Your task to perform on an android device: Open Youtube and go to the subscriptions tab Image 0: 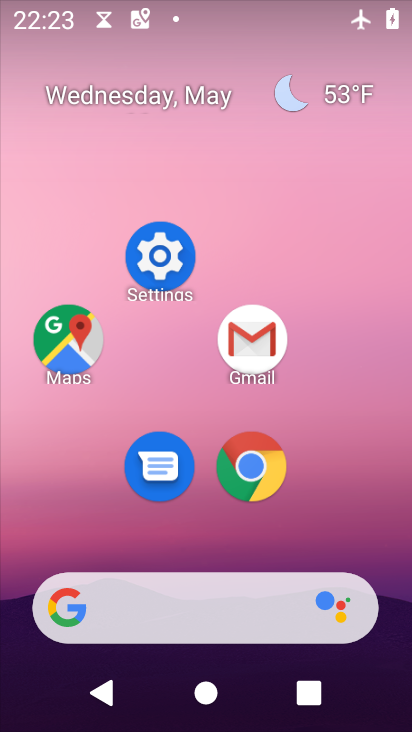
Step 0: drag from (196, 504) to (123, 182)
Your task to perform on an android device: Open Youtube and go to the subscriptions tab Image 1: 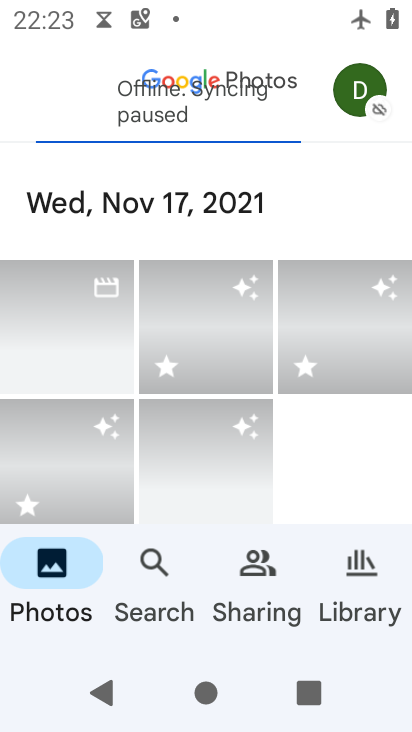
Step 1: press home button
Your task to perform on an android device: Open Youtube and go to the subscriptions tab Image 2: 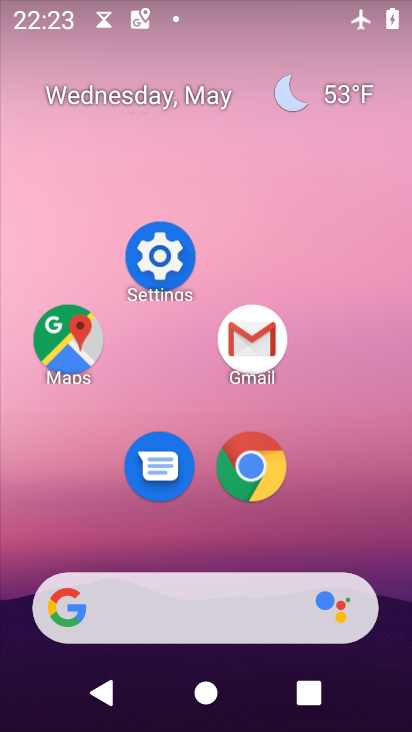
Step 2: drag from (219, 507) to (263, 32)
Your task to perform on an android device: Open Youtube and go to the subscriptions tab Image 3: 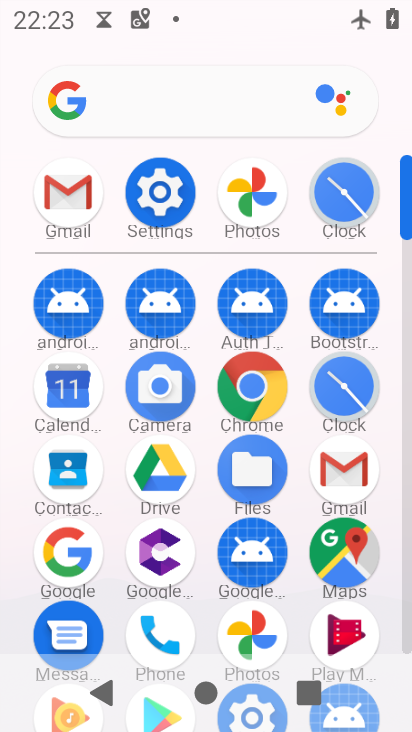
Step 3: drag from (205, 628) to (209, 372)
Your task to perform on an android device: Open Youtube and go to the subscriptions tab Image 4: 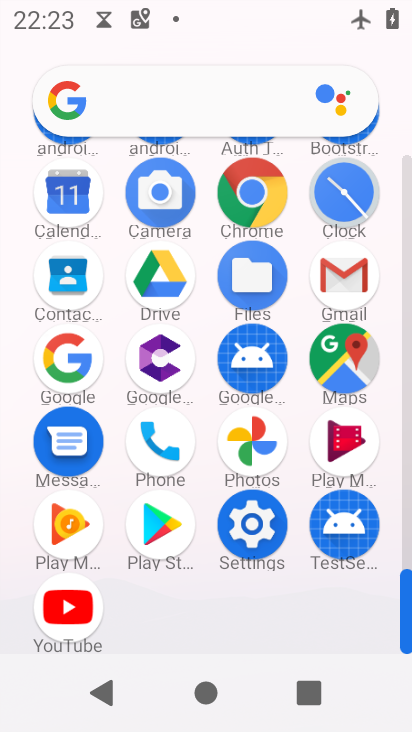
Step 4: click (65, 610)
Your task to perform on an android device: Open Youtube and go to the subscriptions tab Image 5: 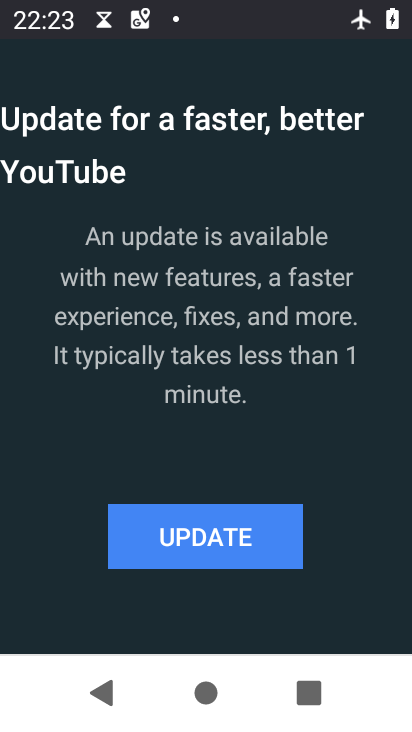
Step 5: click (257, 460)
Your task to perform on an android device: Open Youtube and go to the subscriptions tab Image 6: 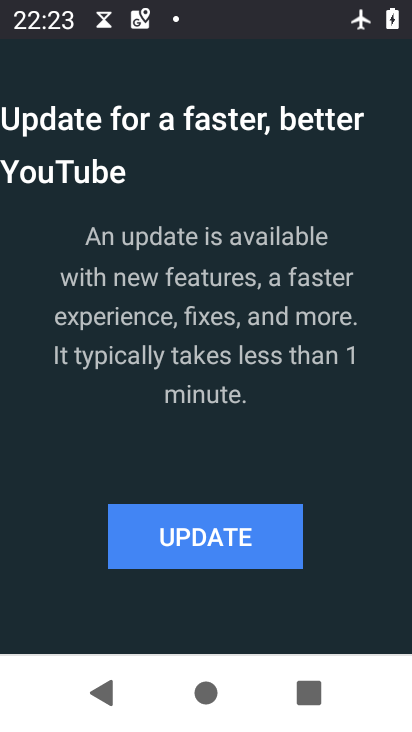
Step 6: click (265, 416)
Your task to perform on an android device: Open Youtube and go to the subscriptions tab Image 7: 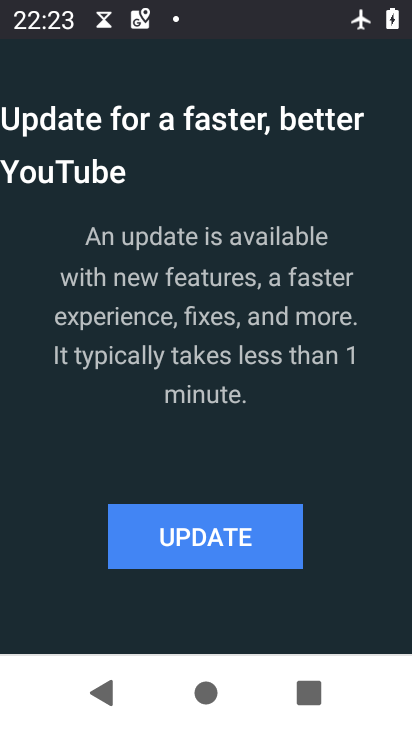
Step 7: task complete